Your task to perform on an android device: search for starred emails in the gmail app Image 0: 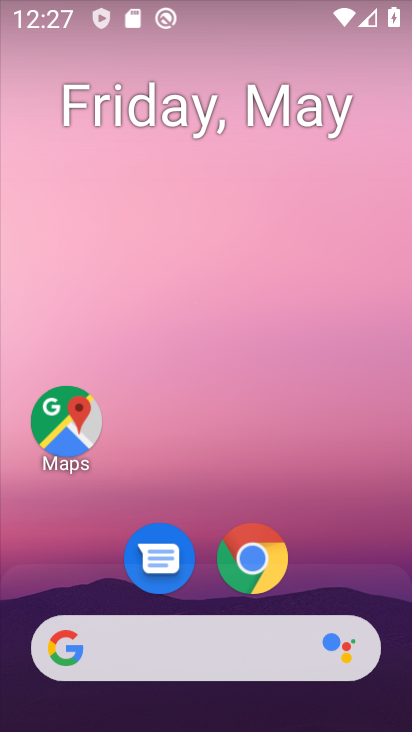
Step 0: drag from (367, 578) to (245, 81)
Your task to perform on an android device: search for starred emails in the gmail app Image 1: 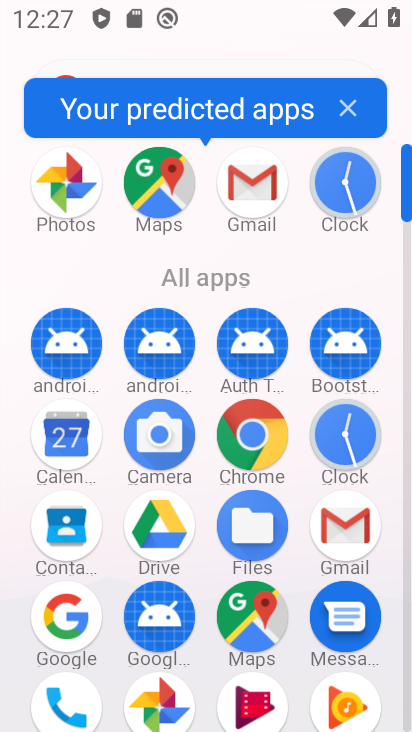
Step 1: click (352, 529)
Your task to perform on an android device: search for starred emails in the gmail app Image 2: 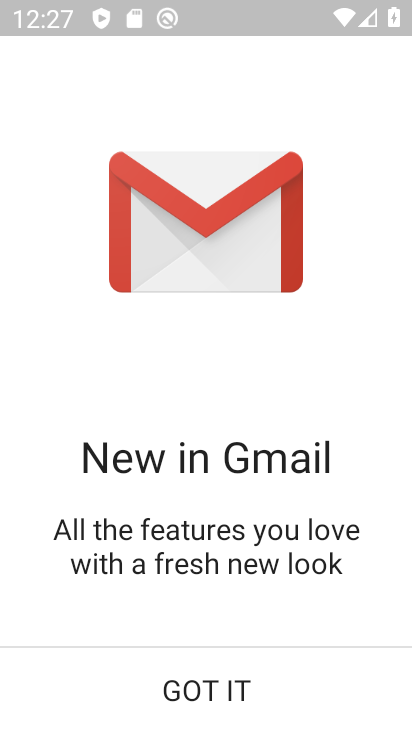
Step 2: click (234, 693)
Your task to perform on an android device: search for starred emails in the gmail app Image 3: 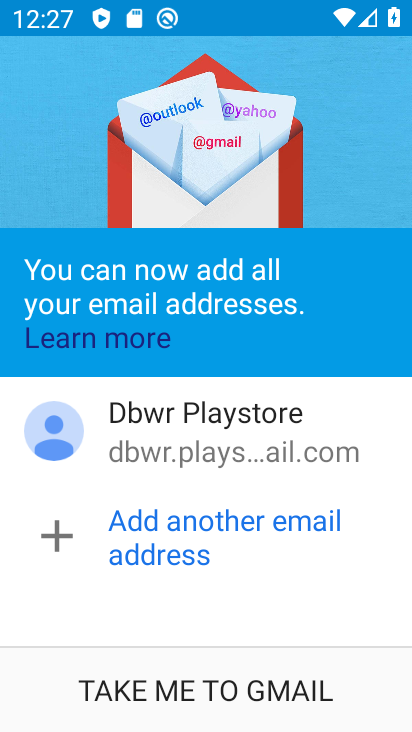
Step 3: click (234, 693)
Your task to perform on an android device: search for starred emails in the gmail app Image 4: 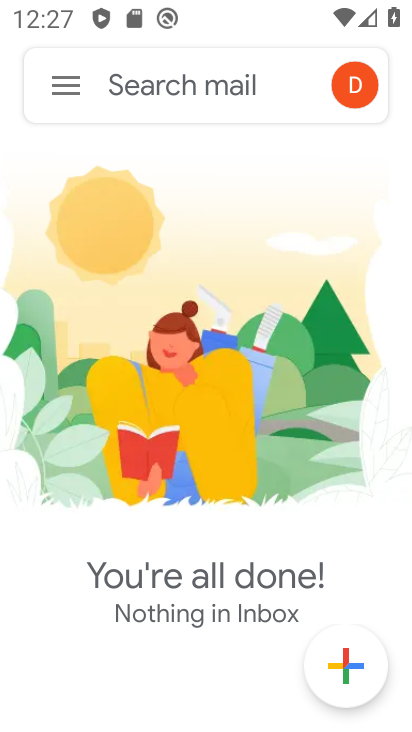
Step 4: click (63, 81)
Your task to perform on an android device: search for starred emails in the gmail app Image 5: 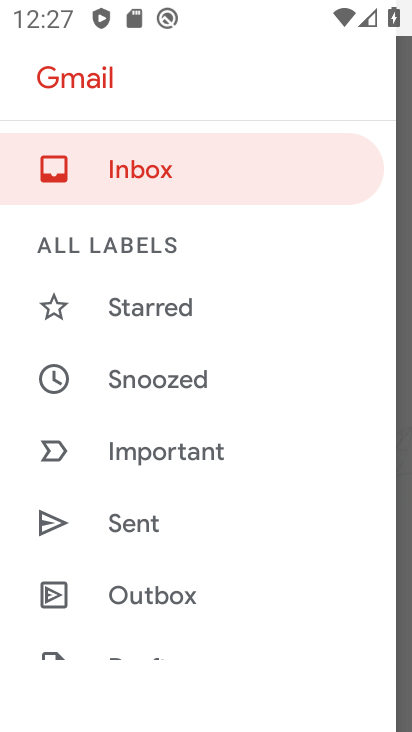
Step 5: click (143, 308)
Your task to perform on an android device: search for starred emails in the gmail app Image 6: 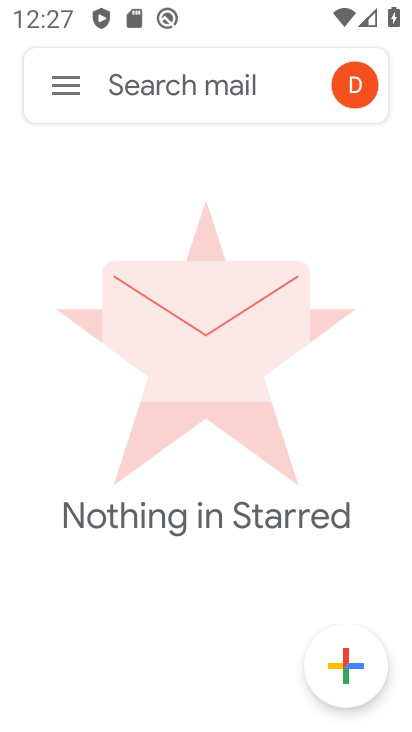
Step 6: task complete